Your task to perform on an android device: toggle wifi Image 0: 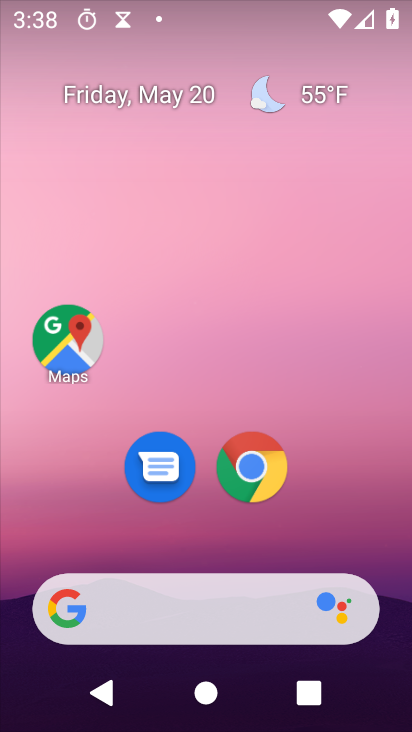
Step 0: drag from (211, 551) to (222, 1)
Your task to perform on an android device: toggle wifi Image 1: 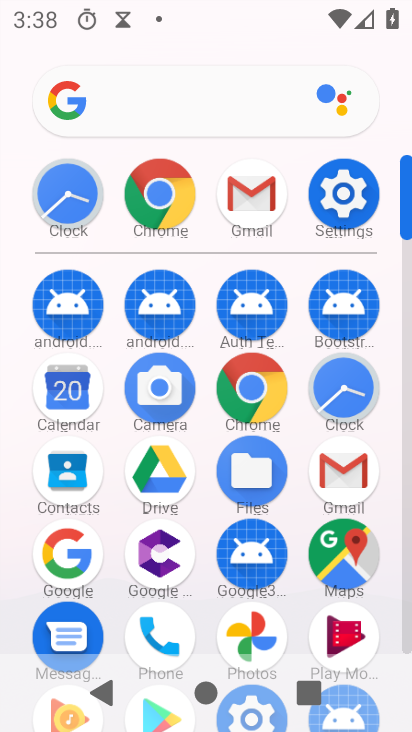
Step 1: click (347, 192)
Your task to perform on an android device: toggle wifi Image 2: 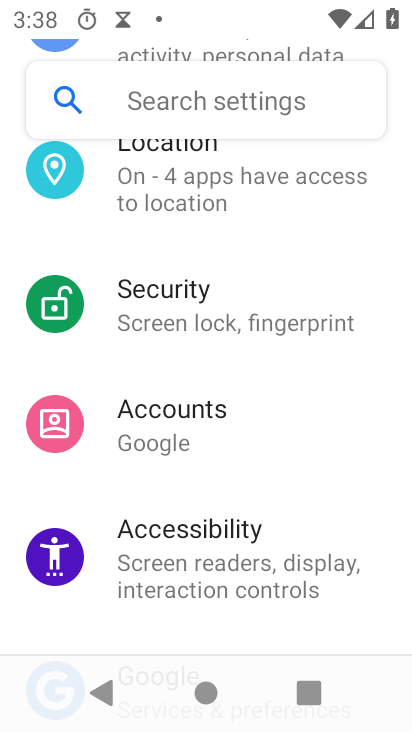
Step 2: drag from (138, 271) to (156, 630)
Your task to perform on an android device: toggle wifi Image 3: 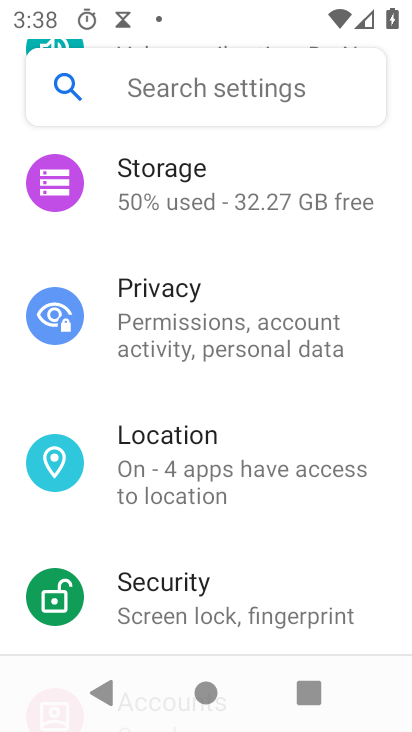
Step 3: drag from (165, 271) to (189, 660)
Your task to perform on an android device: toggle wifi Image 4: 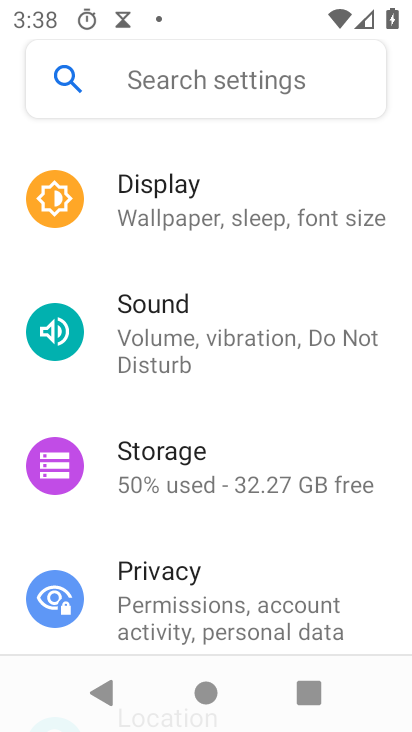
Step 4: drag from (147, 295) to (126, 629)
Your task to perform on an android device: toggle wifi Image 5: 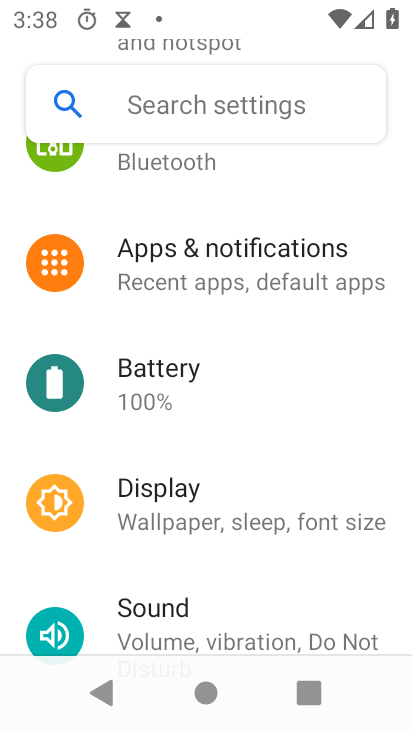
Step 5: drag from (181, 257) to (177, 607)
Your task to perform on an android device: toggle wifi Image 6: 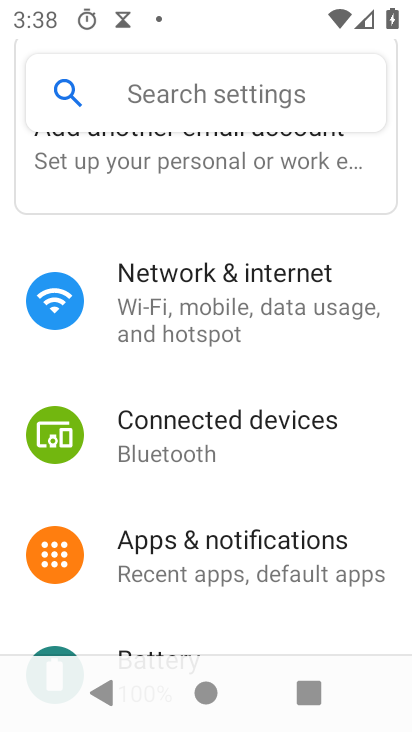
Step 6: drag from (155, 387) to (146, 576)
Your task to perform on an android device: toggle wifi Image 7: 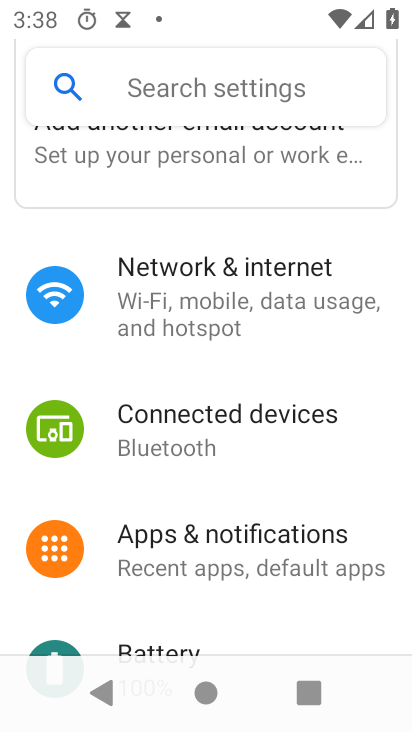
Step 7: click (137, 317)
Your task to perform on an android device: toggle wifi Image 8: 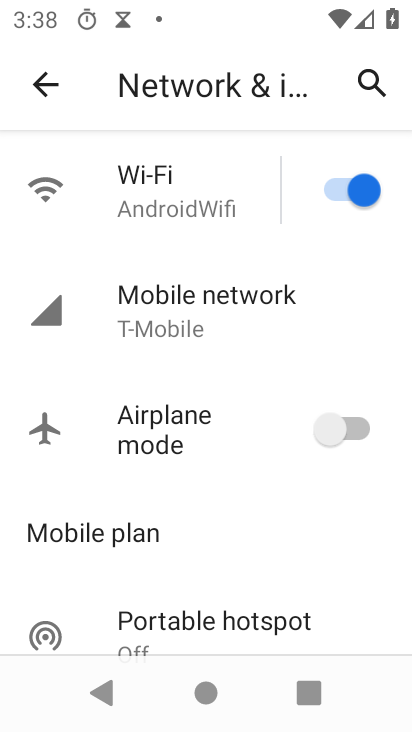
Step 8: drag from (124, 297) to (110, 180)
Your task to perform on an android device: toggle wifi Image 9: 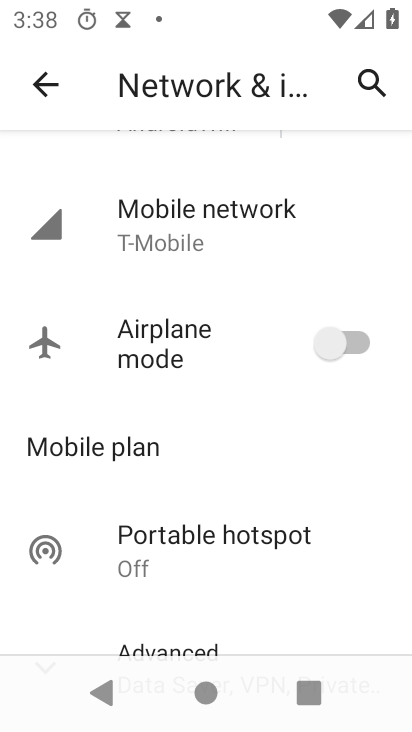
Step 9: click (147, 127)
Your task to perform on an android device: toggle wifi Image 10: 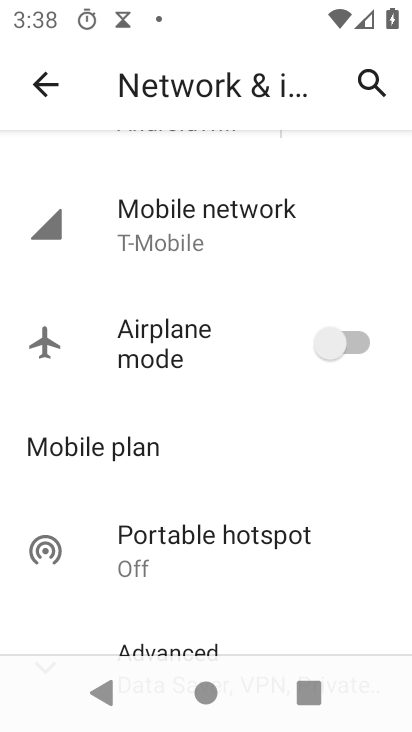
Step 10: click (147, 133)
Your task to perform on an android device: toggle wifi Image 11: 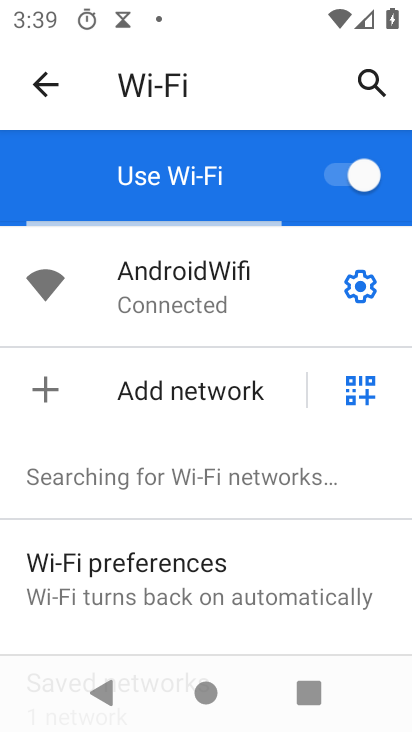
Step 11: click (358, 189)
Your task to perform on an android device: toggle wifi Image 12: 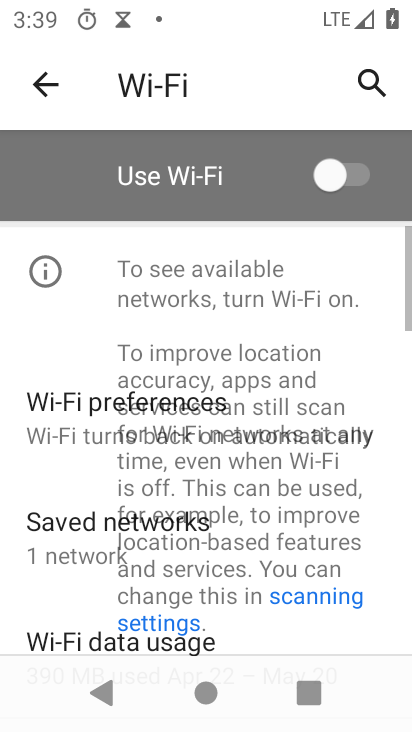
Step 12: task complete